Your task to perform on an android device: Open the calendar and show me this week's events Image 0: 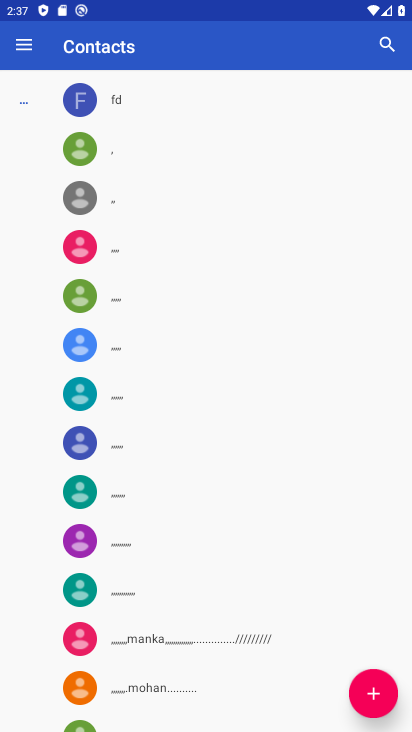
Step 0: press home button
Your task to perform on an android device: Open the calendar and show me this week's events Image 1: 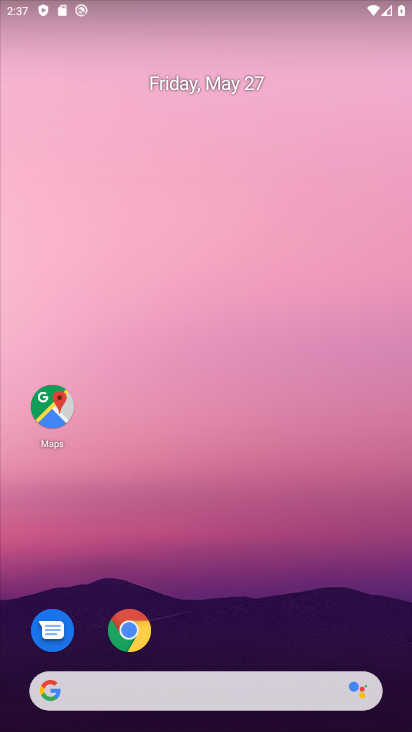
Step 1: drag from (193, 647) to (288, 14)
Your task to perform on an android device: Open the calendar and show me this week's events Image 2: 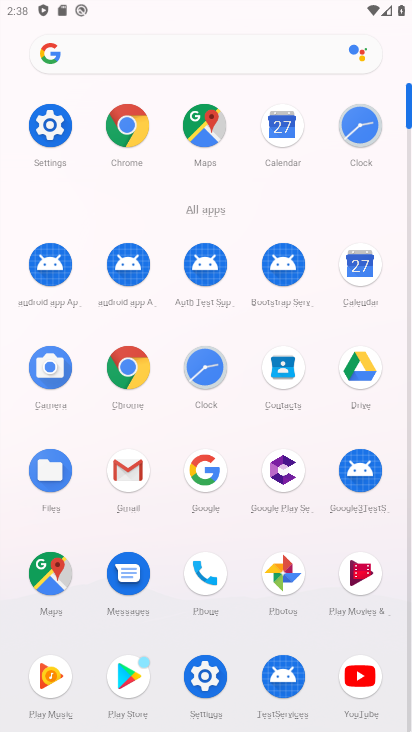
Step 2: click (278, 134)
Your task to perform on an android device: Open the calendar and show me this week's events Image 3: 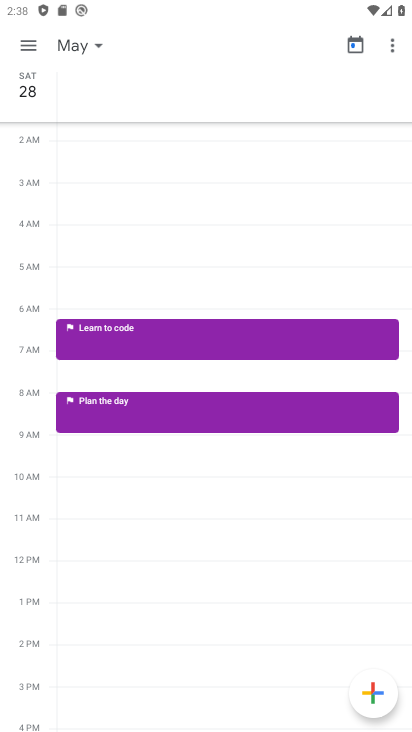
Step 3: click (23, 37)
Your task to perform on an android device: Open the calendar and show me this week's events Image 4: 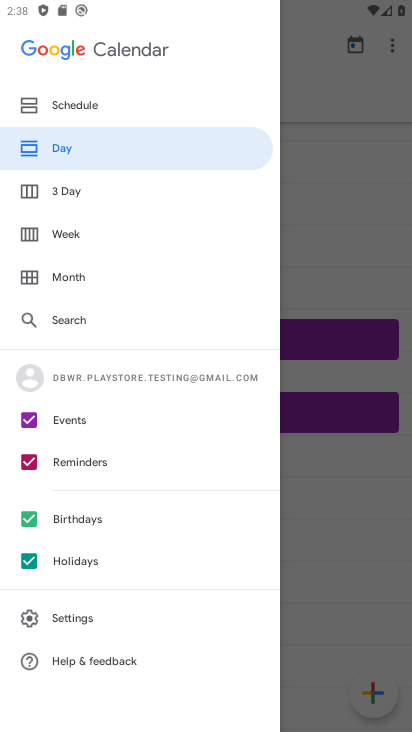
Step 4: click (69, 230)
Your task to perform on an android device: Open the calendar and show me this week's events Image 5: 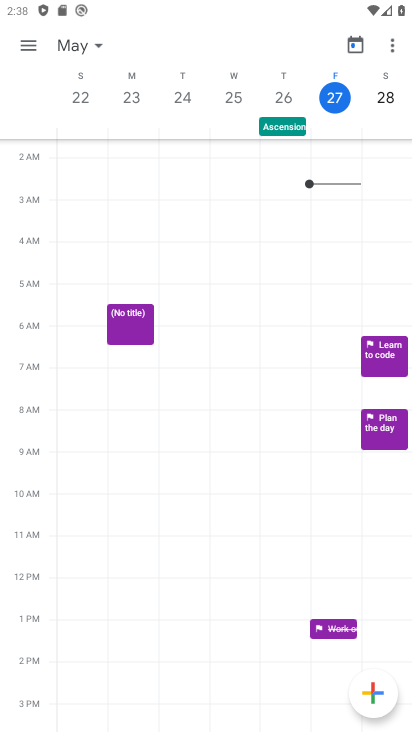
Step 5: task complete